Your task to perform on an android device: set the stopwatch Image 0: 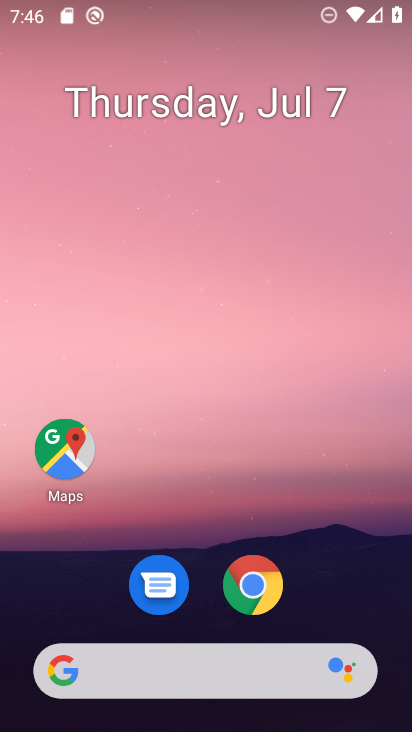
Step 0: drag from (213, 674) to (311, 164)
Your task to perform on an android device: set the stopwatch Image 1: 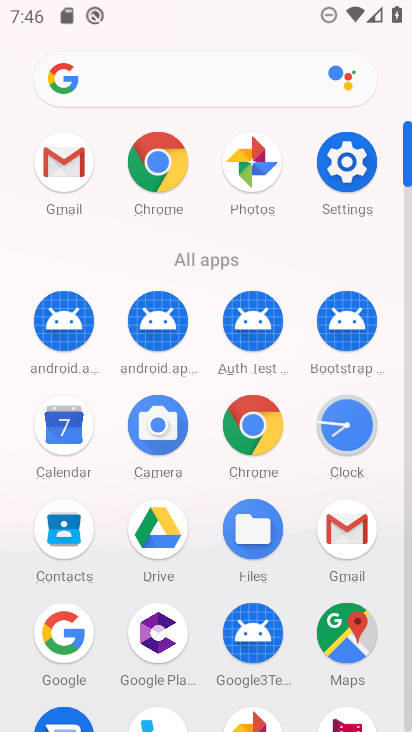
Step 1: click (344, 423)
Your task to perform on an android device: set the stopwatch Image 2: 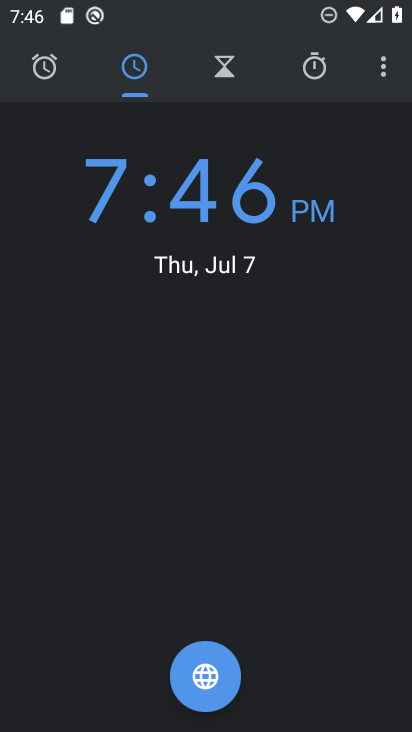
Step 2: click (321, 65)
Your task to perform on an android device: set the stopwatch Image 3: 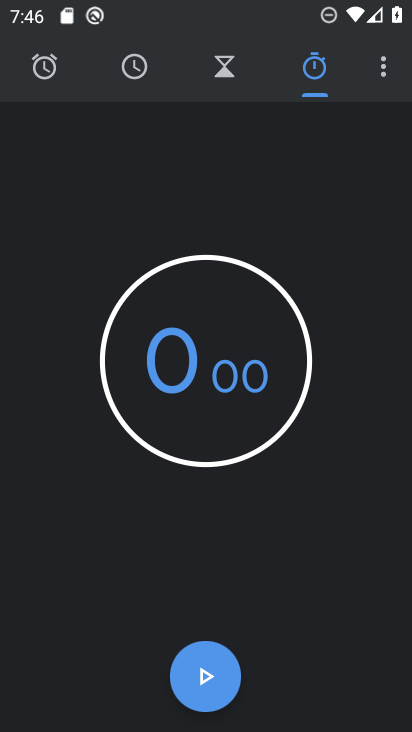
Step 3: click (219, 383)
Your task to perform on an android device: set the stopwatch Image 4: 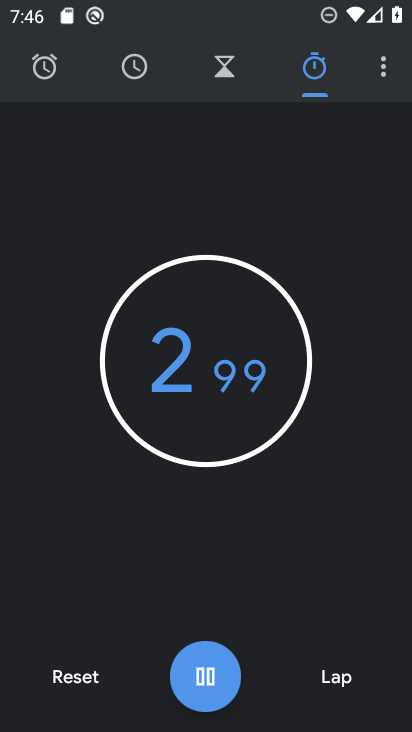
Step 4: click (218, 383)
Your task to perform on an android device: set the stopwatch Image 5: 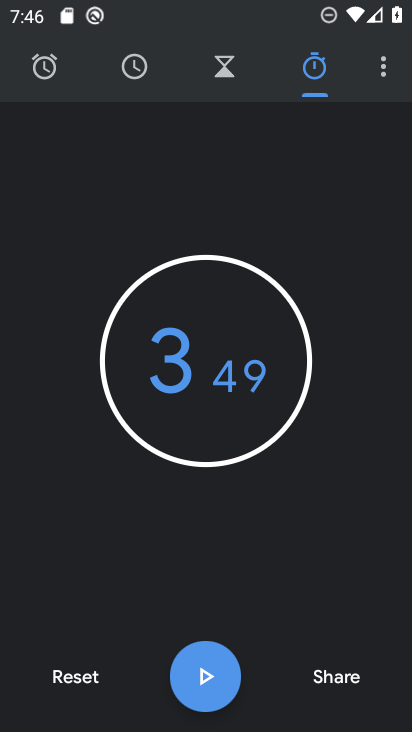
Step 5: task complete